Your task to perform on an android device: Open the phone app and click the voicemail tab. Image 0: 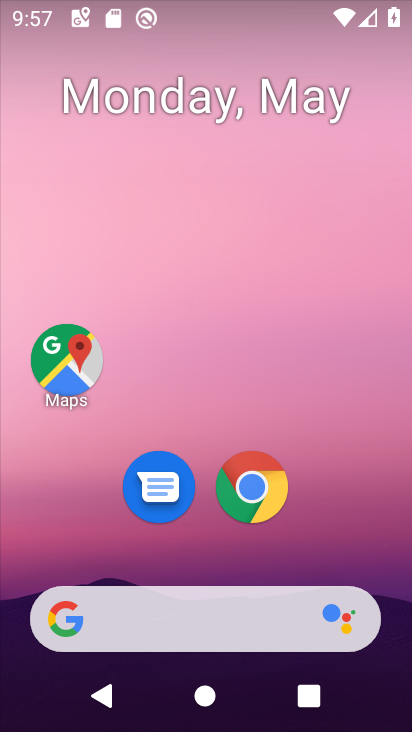
Step 0: drag from (279, 558) to (380, 40)
Your task to perform on an android device: Open the phone app and click the voicemail tab. Image 1: 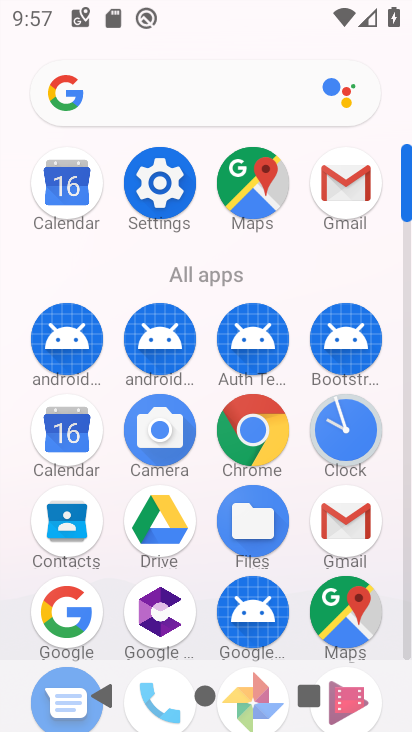
Step 1: drag from (296, 570) to (290, 290)
Your task to perform on an android device: Open the phone app and click the voicemail tab. Image 2: 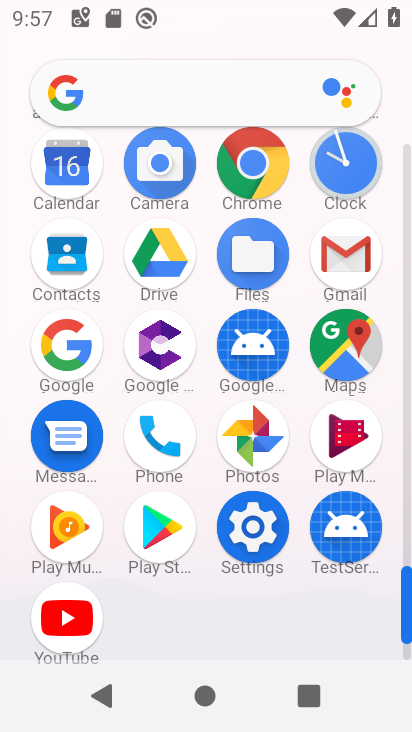
Step 2: click (336, 442)
Your task to perform on an android device: Open the phone app and click the voicemail tab. Image 3: 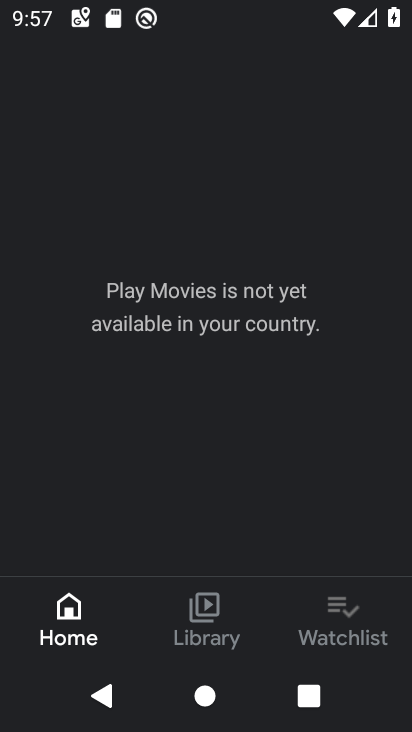
Step 3: click (334, 615)
Your task to perform on an android device: Open the phone app and click the voicemail tab. Image 4: 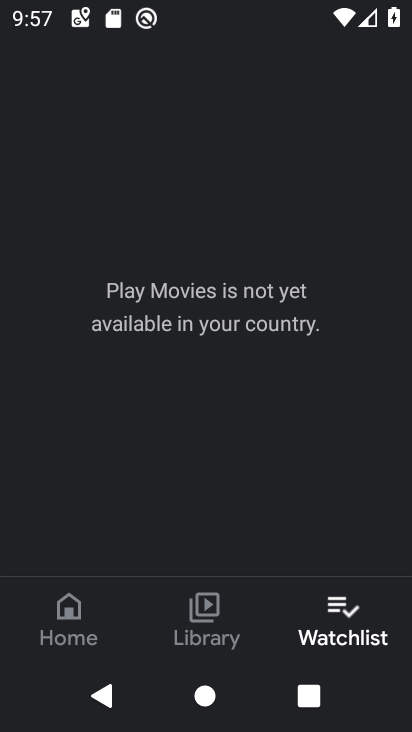
Step 4: task complete